Your task to perform on an android device: turn off sleep mode Image 0: 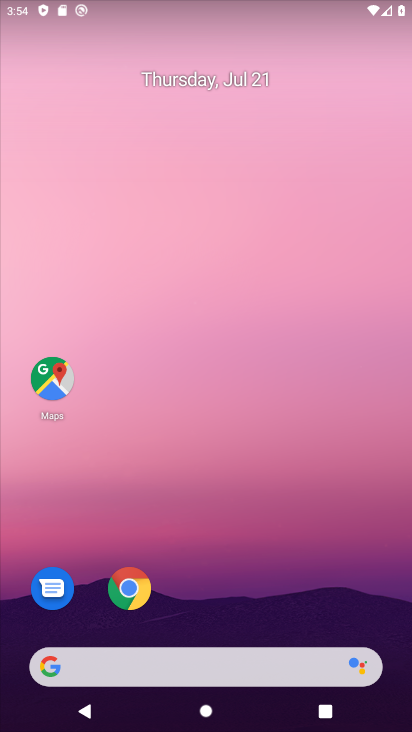
Step 0: press home button
Your task to perform on an android device: turn off sleep mode Image 1: 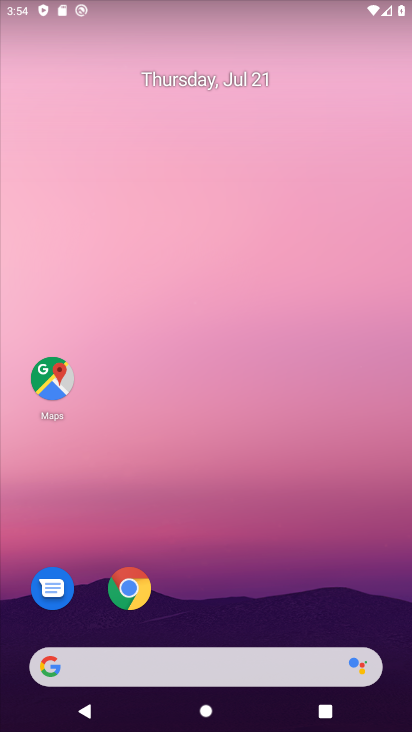
Step 1: press home button
Your task to perform on an android device: turn off sleep mode Image 2: 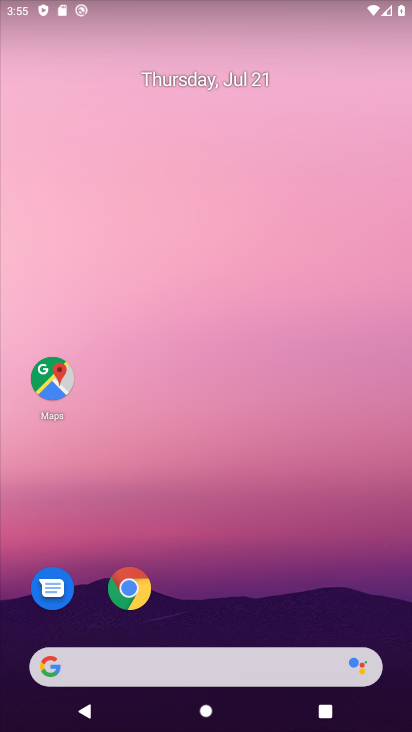
Step 2: press home button
Your task to perform on an android device: turn off sleep mode Image 3: 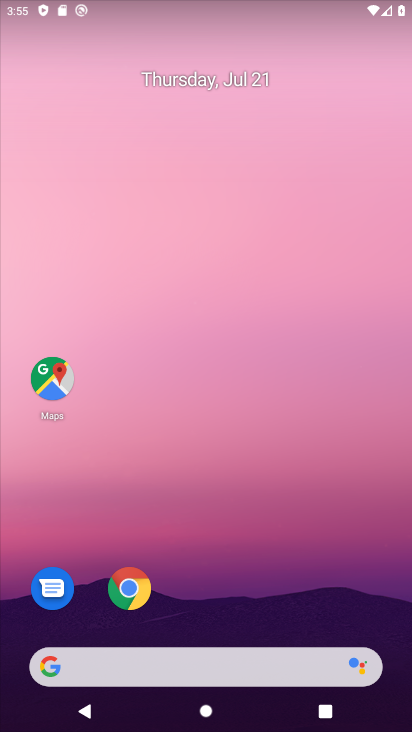
Step 3: press home button
Your task to perform on an android device: turn off sleep mode Image 4: 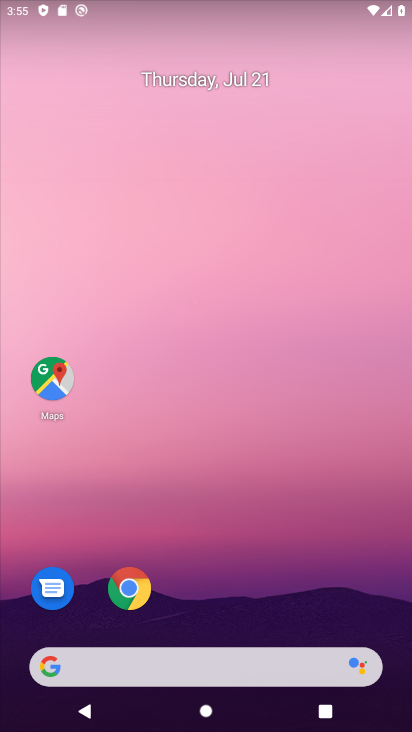
Step 4: drag from (241, 613) to (232, 163)
Your task to perform on an android device: turn off sleep mode Image 5: 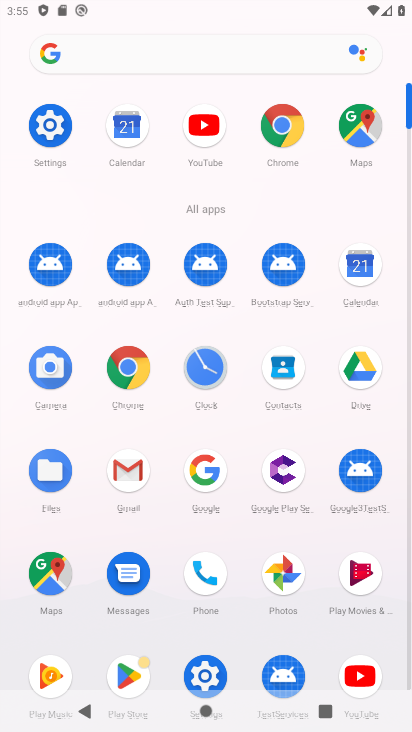
Step 5: click (200, 662)
Your task to perform on an android device: turn off sleep mode Image 6: 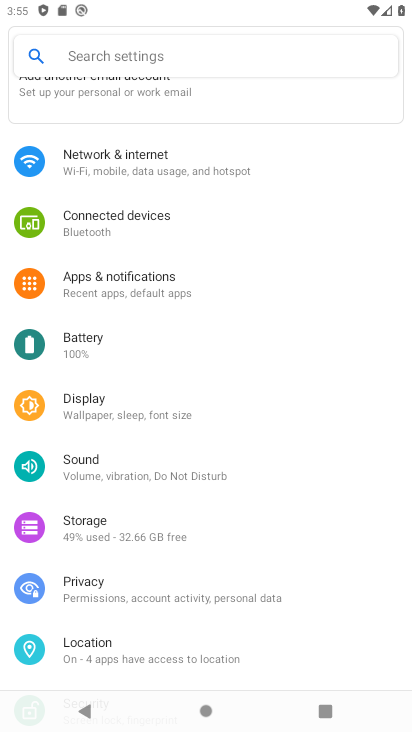
Step 6: drag from (127, 506) to (155, 216)
Your task to perform on an android device: turn off sleep mode Image 7: 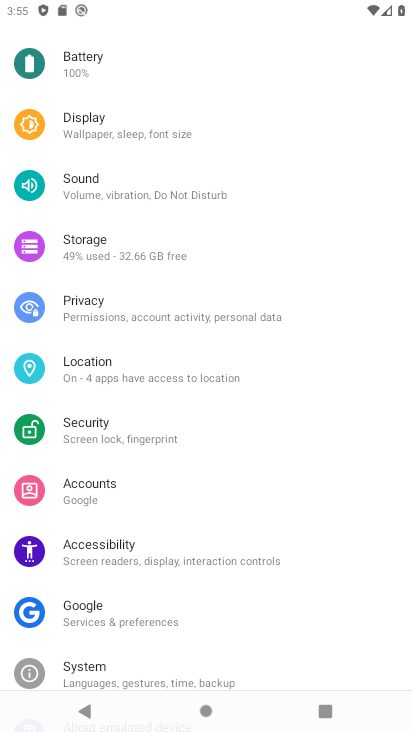
Step 7: click (94, 115)
Your task to perform on an android device: turn off sleep mode Image 8: 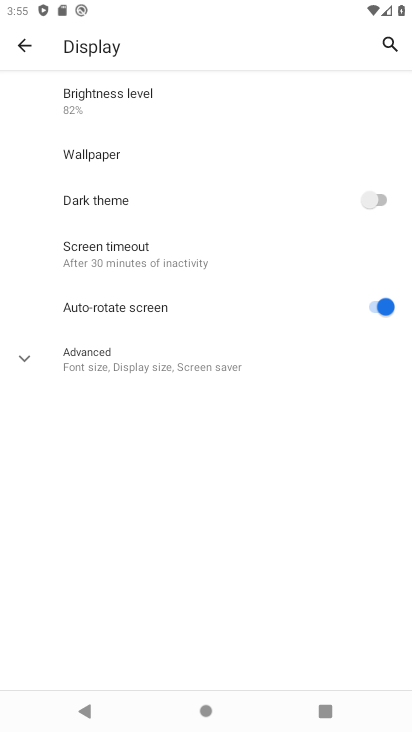
Step 8: task complete